Your task to perform on an android device: toggle translation in the chrome app Image 0: 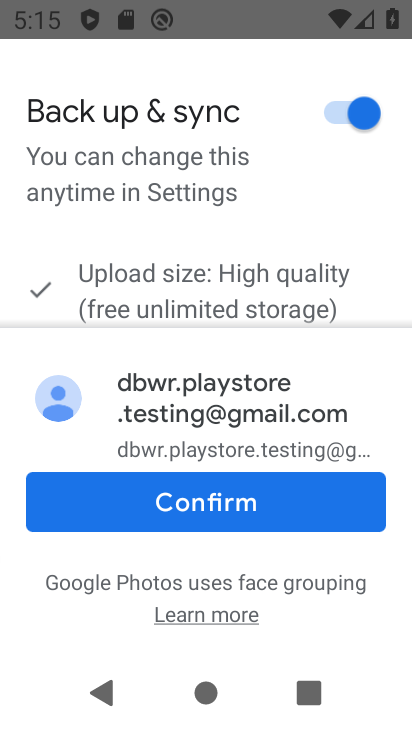
Step 0: press home button
Your task to perform on an android device: toggle translation in the chrome app Image 1: 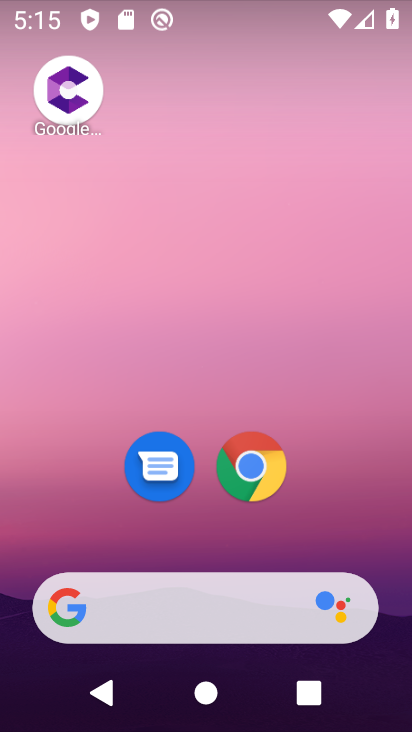
Step 1: drag from (305, 525) to (339, 101)
Your task to perform on an android device: toggle translation in the chrome app Image 2: 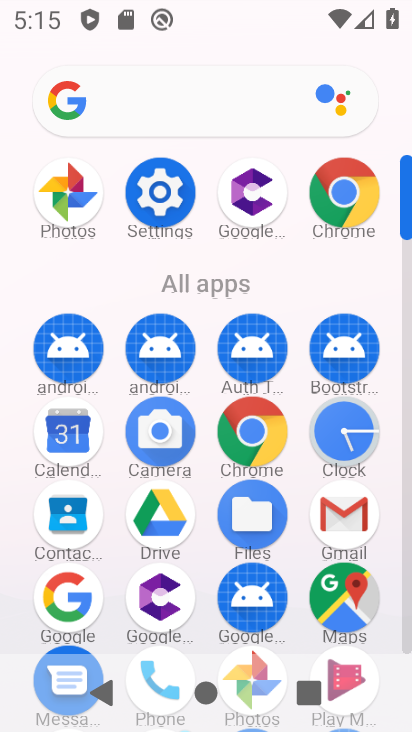
Step 2: click (261, 438)
Your task to perform on an android device: toggle translation in the chrome app Image 3: 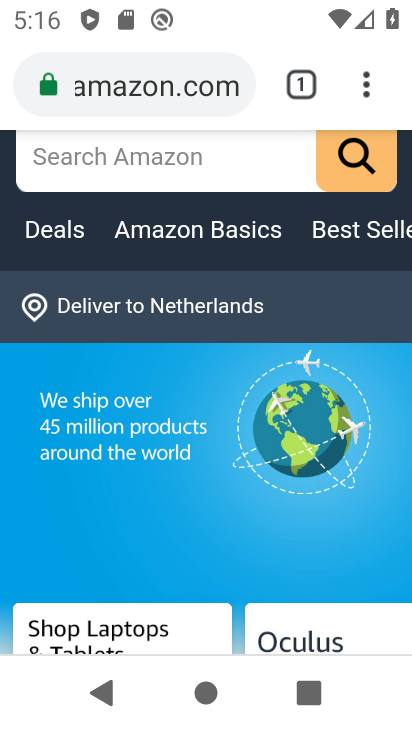
Step 3: drag from (370, 85) to (93, 498)
Your task to perform on an android device: toggle translation in the chrome app Image 4: 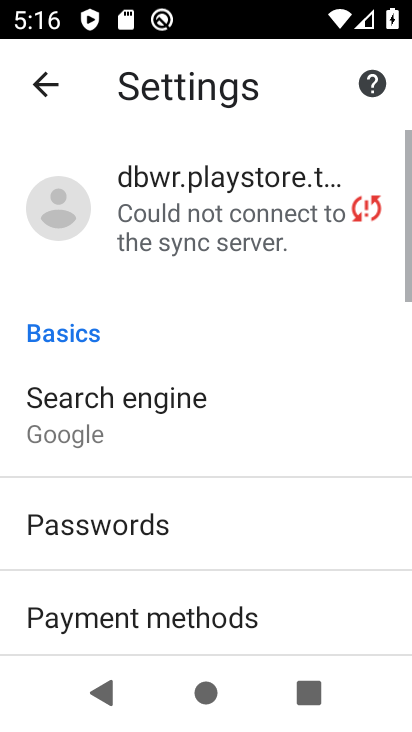
Step 4: drag from (202, 539) to (275, 144)
Your task to perform on an android device: toggle translation in the chrome app Image 5: 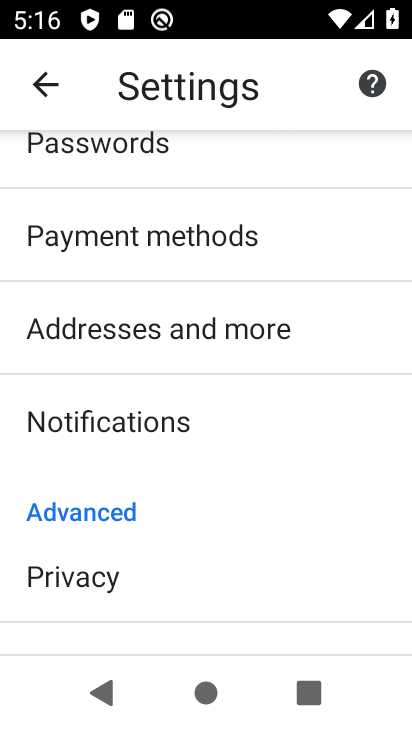
Step 5: drag from (245, 582) to (280, 202)
Your task to perform on an android device: toggle translation in the chrome app Image 6: 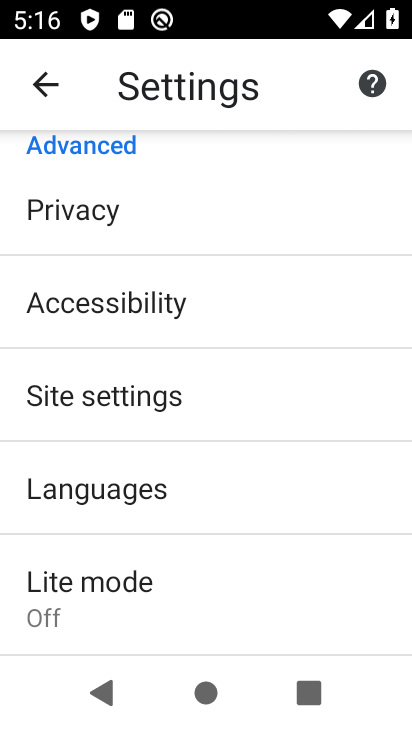
Step 6: click (93, 490)
Your task to perform on an android device: toggle translation in the chrome app Image 7: 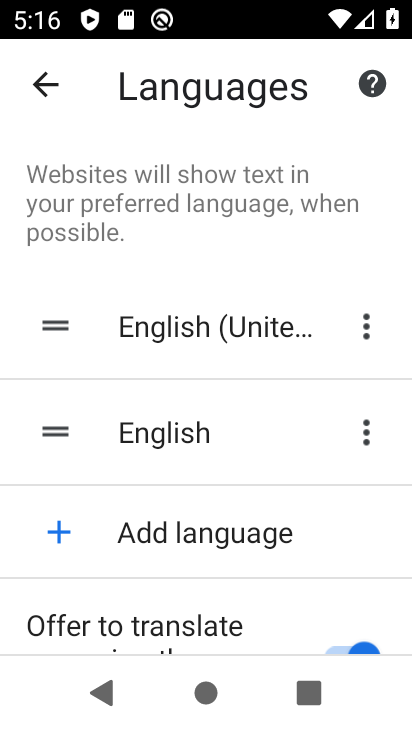
Step 7: drag from (126, 529) to (186, 232)
Your task to perform on an android device: toggle translation in the chrome app Image 8: 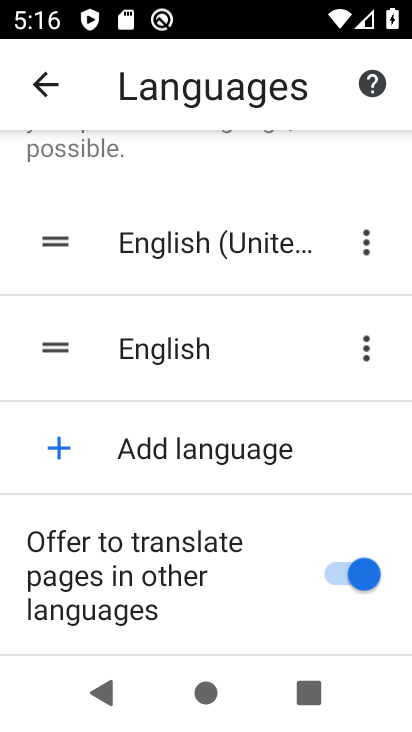
Step 8: click (350, 579)
Your task to perform on an android device: toggle translation in the chrome app Image 9: 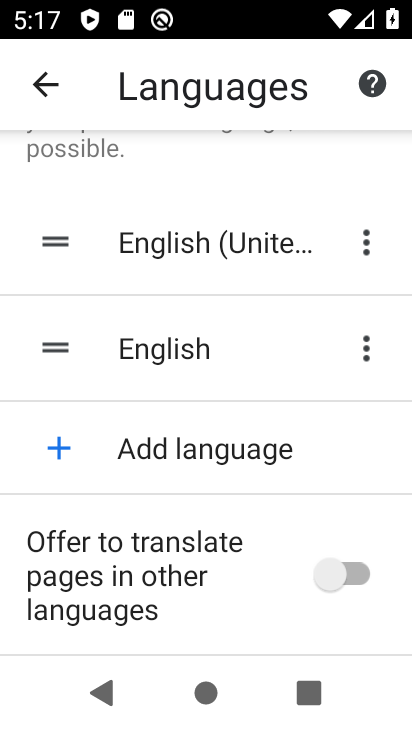
Step 9: press home button
Your task to perform on an android device: toggle translation in the chrome app Image 10: 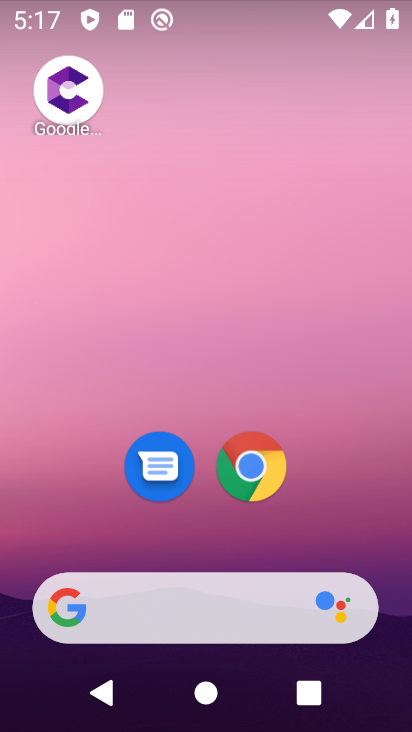
Step 10: drag from (370, 520) to (410, 124)
Your task to perform on an android device: toggle translation in the chrome app Image 11: 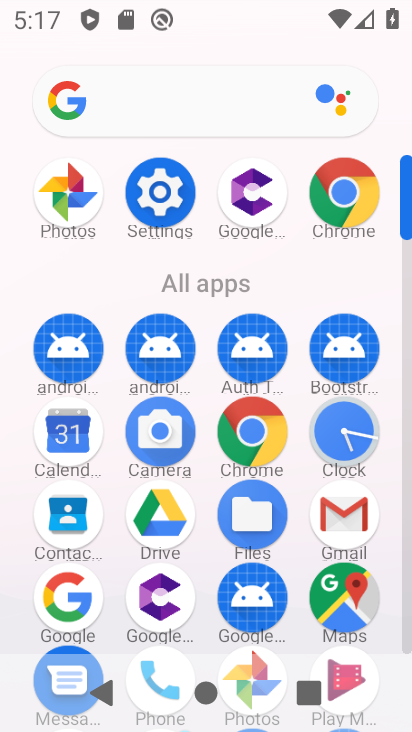
Step 11: click (361, 175)
Your task to perform on an android device: toggle translation in the chrome app Image 12: 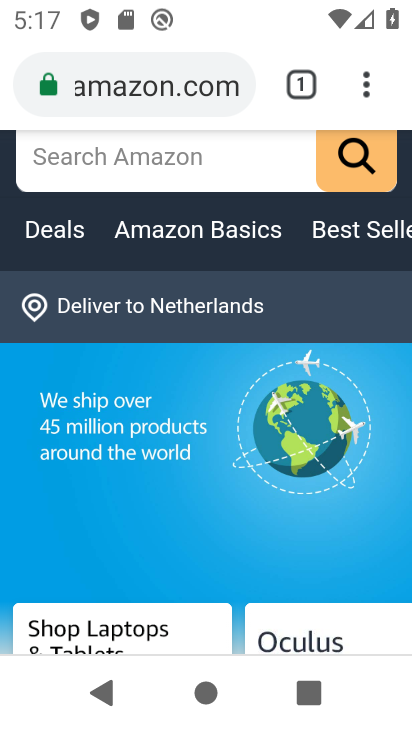
Step 12: drag from (390, 78) to (144, 534)
Your task to perform on an android device: toggle translation in the chrome app Image 13: 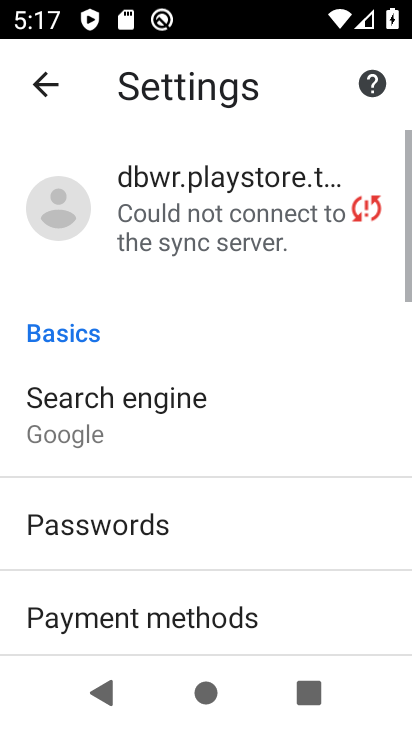
Step 13: drag from (162, 499) to (234, 96)
Your task to perform on an android device: toggle translation in the chrome app Image 14: 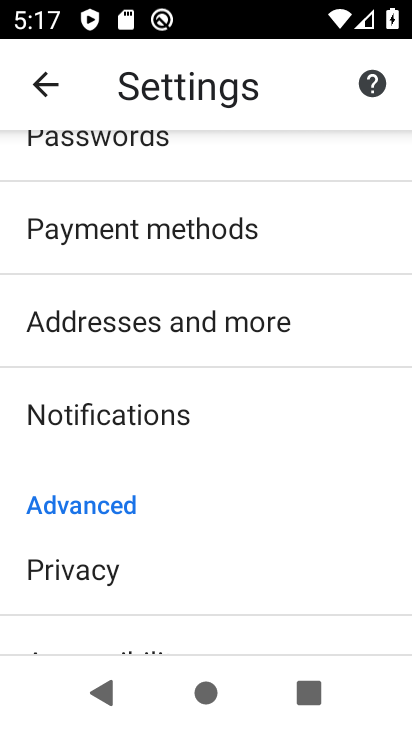
Step 14: drag from (191, 542) to (245, 2)
Your task to perform on an android device: toggle translation in the chrome app Image 15: 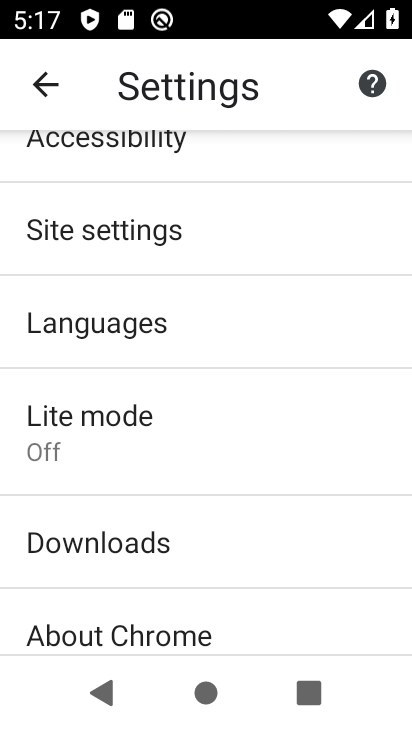
Step 15: click (170, 315)
Your task to perform on an android device: toggle translation in the chrome app Image 16: 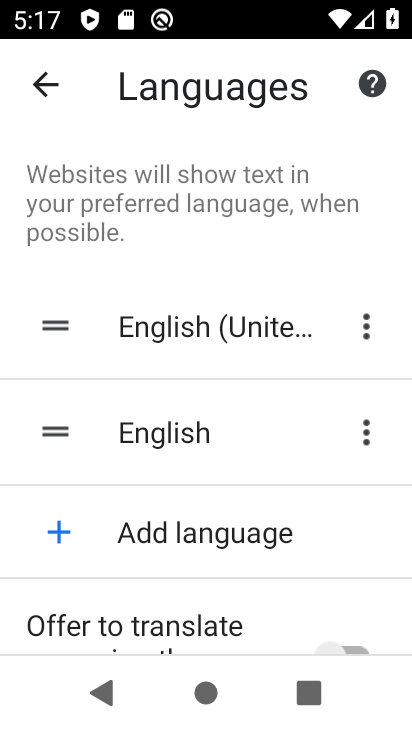
Step 16: drag from (169, 675) to (195, 448)
Your task to perform on an android device: toggle translation in the chrome app Image 17: 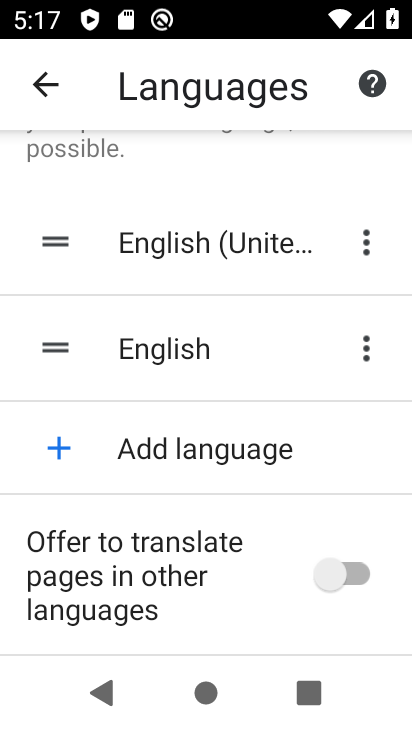
Step 17: click (182, 633)
Your task to perform on an android device: toggle translation in the chrome app Image 18: 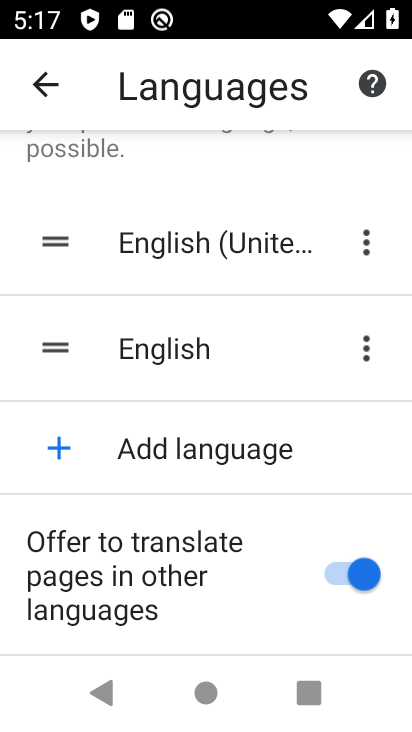
Step 18: task complete